Your task to perform on an android device: Is it going to rain tomorrow? Image 0: 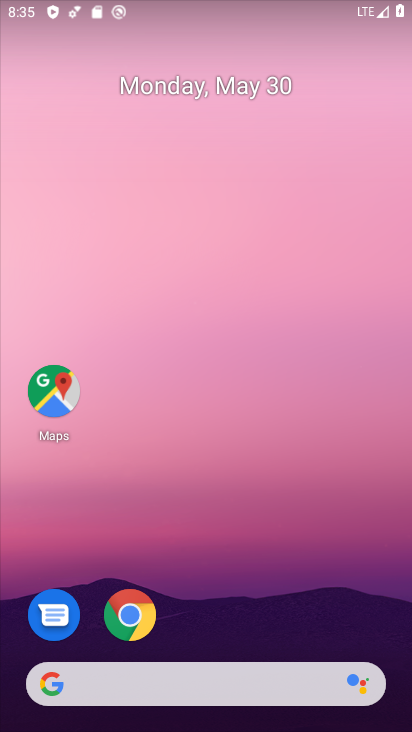
Step 0: click (150, 687)
Your task to perform on an android device: Is it going to rain tomorrow? Image 1: 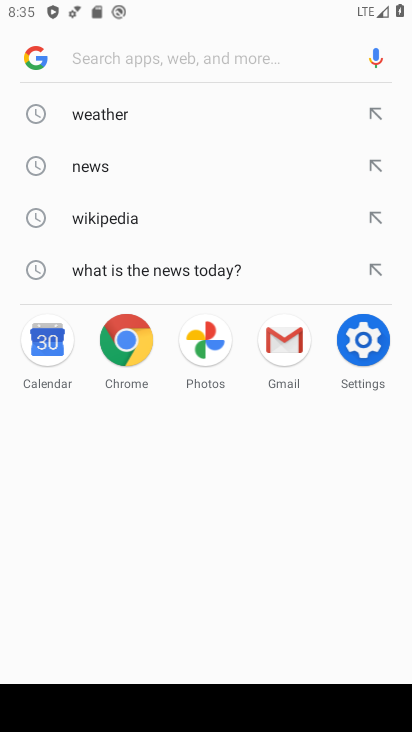
Step 1: click (185, 116)
Your task to perform on an android device: Is it going to rain tomorrow? Image 2: 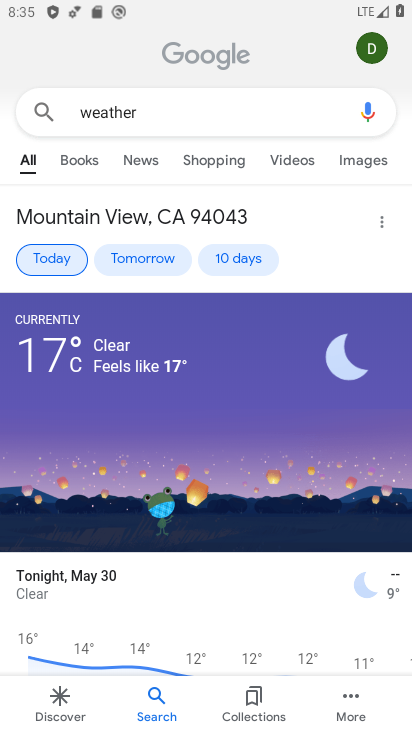
Step 2: click (156, 260)
Your task to perform on an android device: Is it going to rain tomorrow? Image 3: 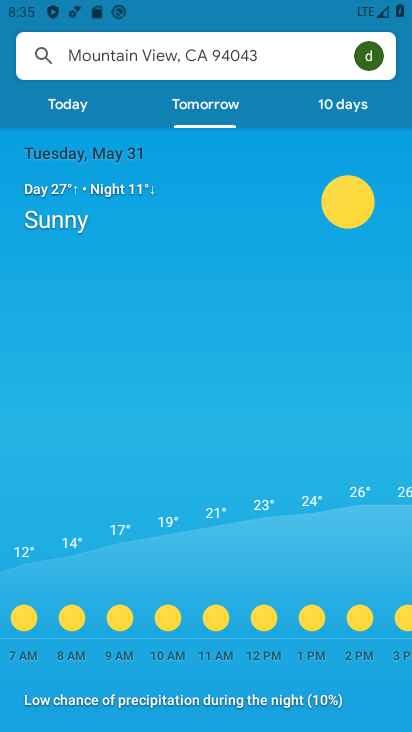
Step 3: task complete